Your task to perform on an android device: Go to internet settings Image 0: 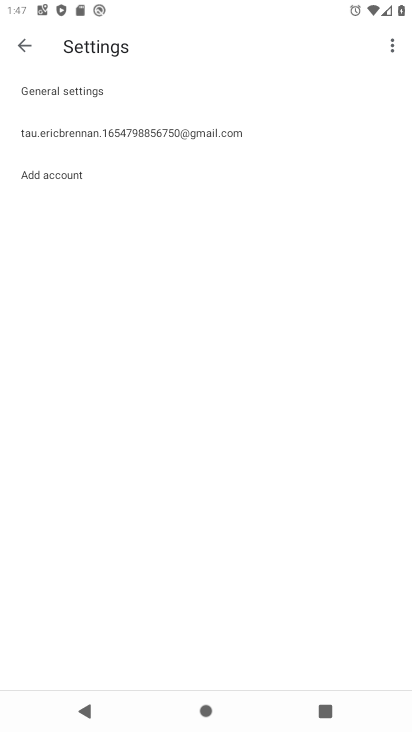
Step 0: press home button
Your task to perform on an android device: Go to internet settings Image 1: 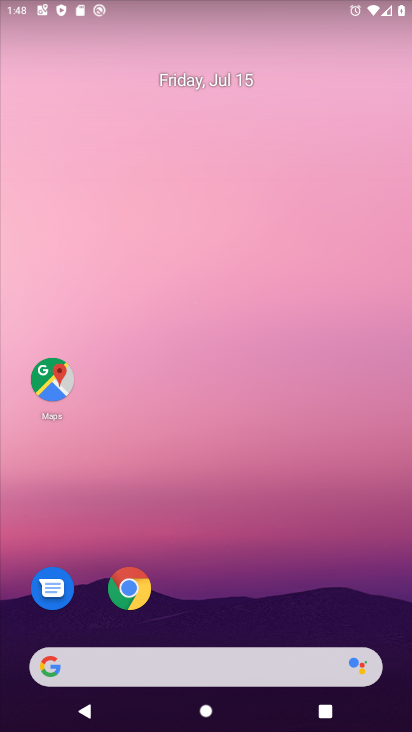
Step 1: drag from (229, 662) to (187, 182)
Your task to perform on an android device: Go to internet settings Image 2: 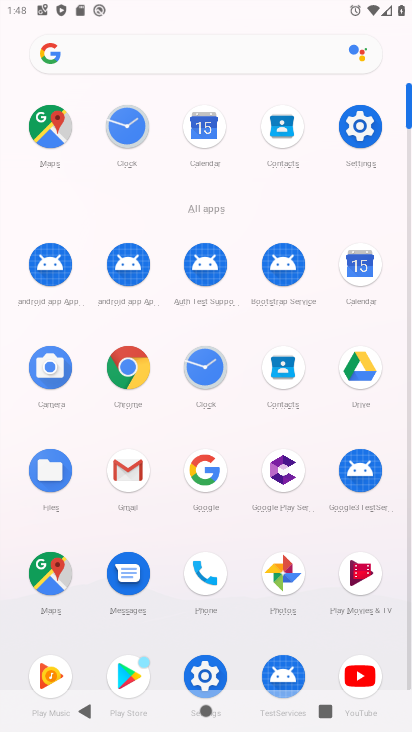
Step 2: click (365, 126)
Your task to perform on an android device: Go to internet settings Image 3: 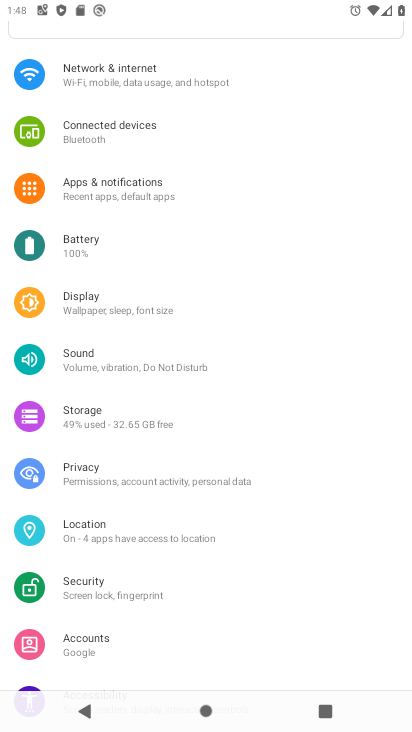
Step 3: click (194, 82)
Your task to perform on an android device: Go to internet settings Image 4: 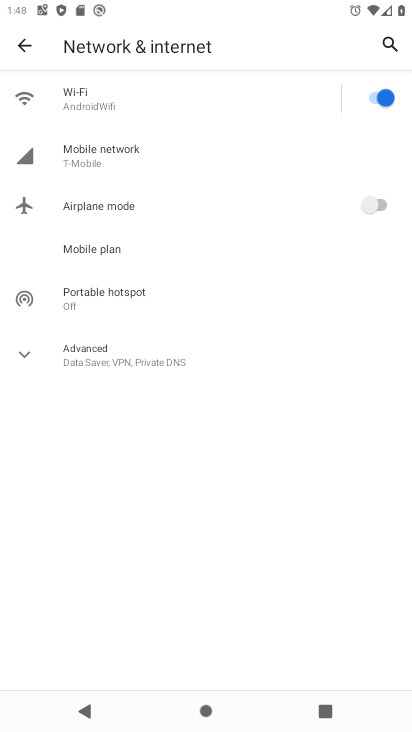
Step 4: task complete